Your task to perform on an android device: change keyboard looks Image 0: 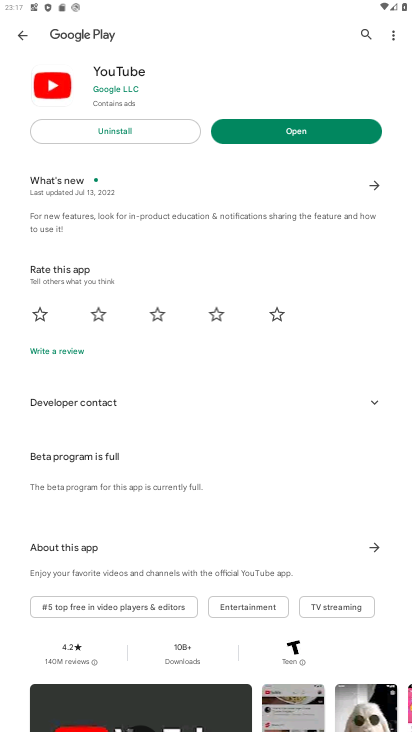
Step 0: press home button
Your task to perform on an android device: change keyboard looks Image 1: 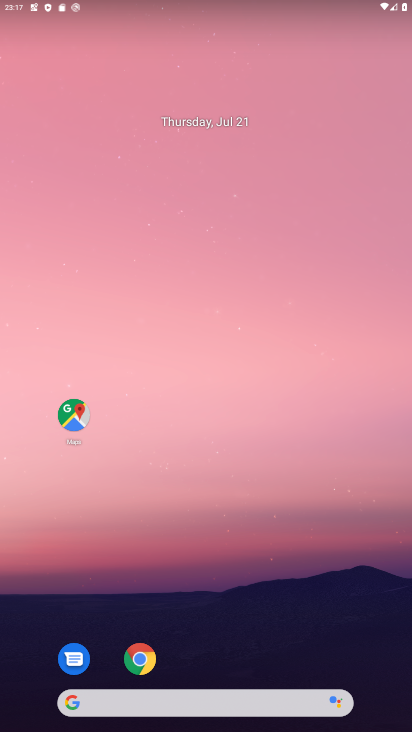
Step 1: drag from (292, 584) to (334, 21)
Your task to perform on an android device: change keyboard looks Image 2: 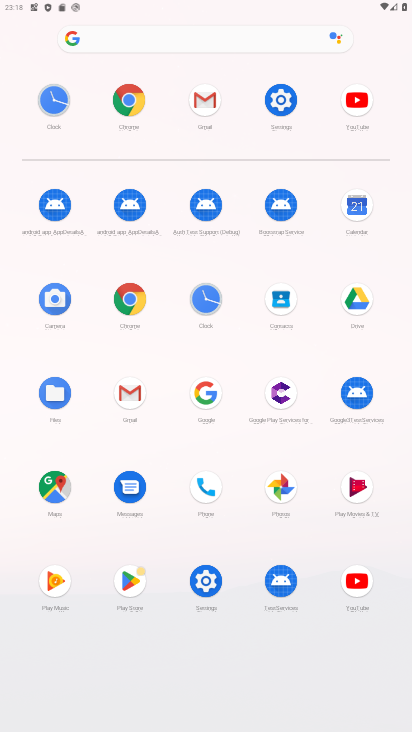
Step 2: click (281, 111)
Your task to perform on an android device: change keyboard looks Image 3: 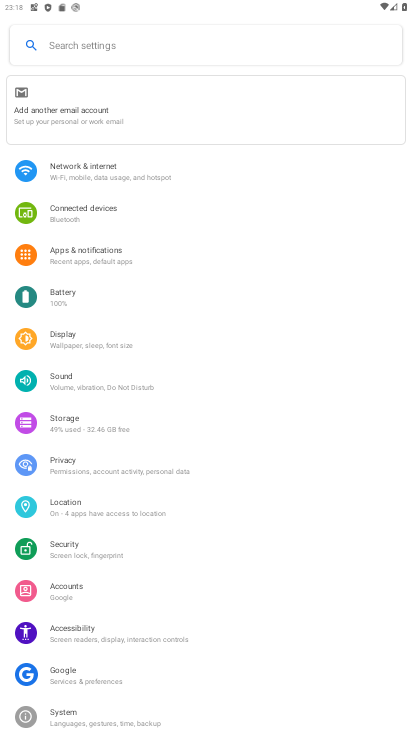
Step 3: drag from (144, 598) to (192, 215)
Your task to perform on an android device: change keyboard looks Image 4: 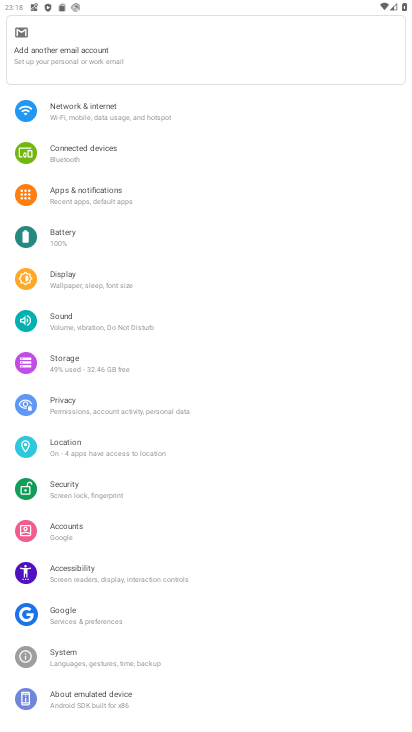
Step 4: click (106, 656)
Your task to perform on an android device: change keyboard looks Image 5: 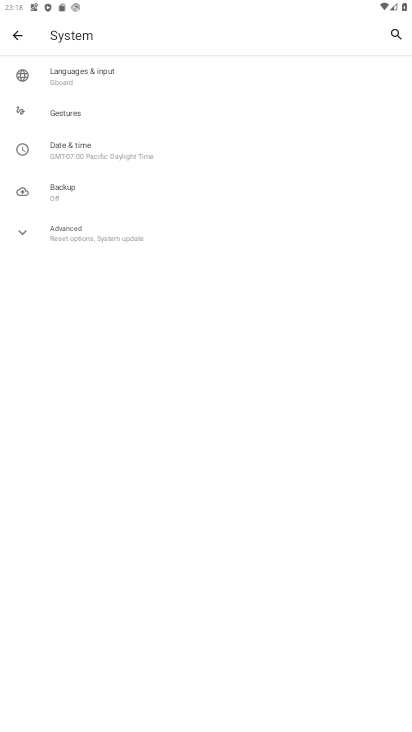
Step 5: click (88, 77)
Your task to perform on an android device: change keyboard looks Image 6: 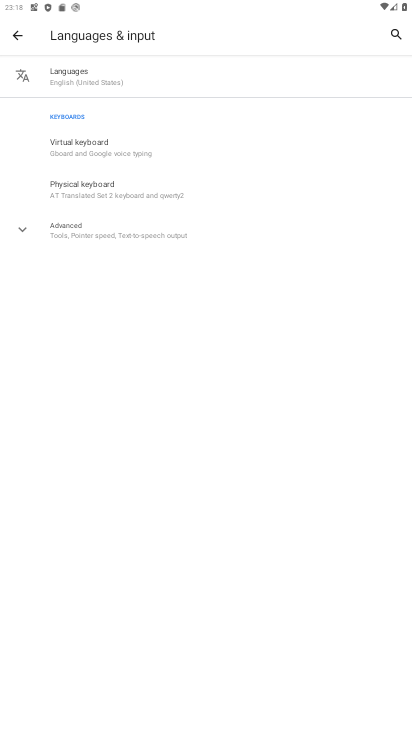
Step 6: click (117, 155)
Your task to perform on an android device: change keyboard looks Image 7: 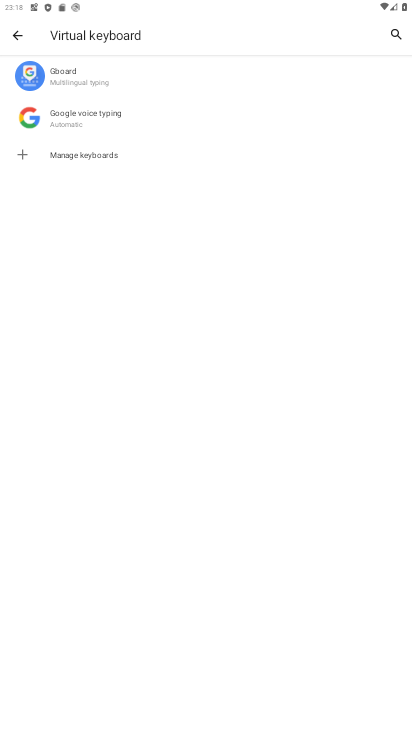
Step 7: click (91, 81)
Your task to perform on an android device: change keyboard looks Image 8: 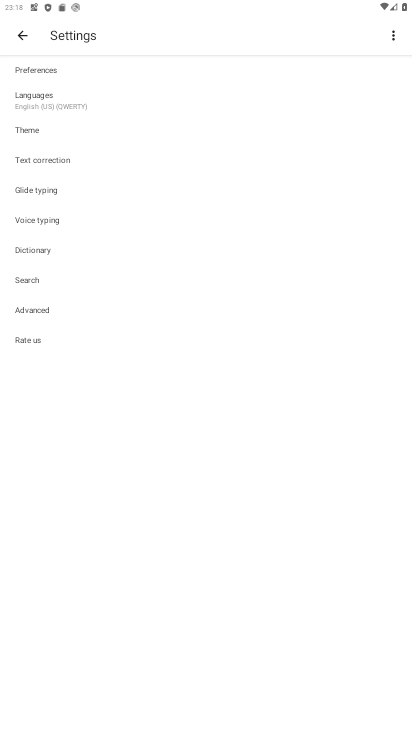
Step 8: click (63, 108)
Your task to perform on an android device: change keyboard looks Image 9: 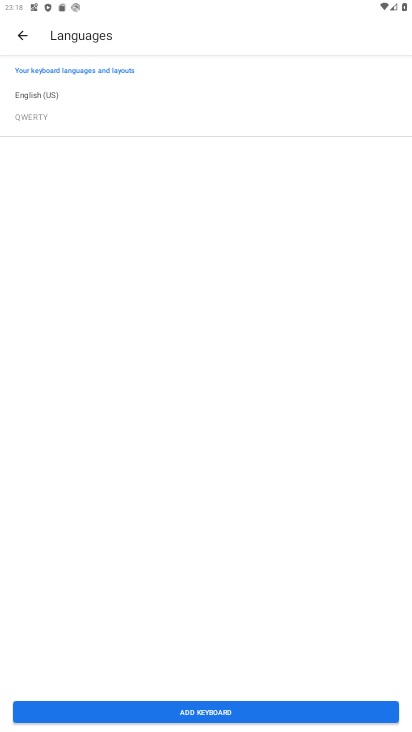
Step 9: click (24, 28)
Your task to perform on an android device: change keyboard looks Image 10: 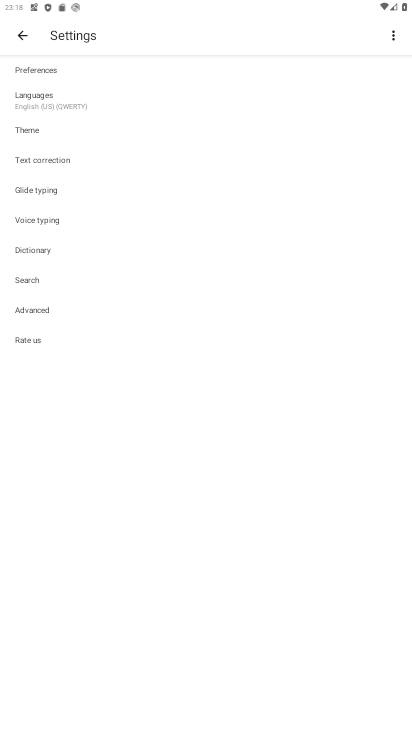
Step 10: click (43, 140)
Your task to perform on an android device: change keyboard looks Image 11: 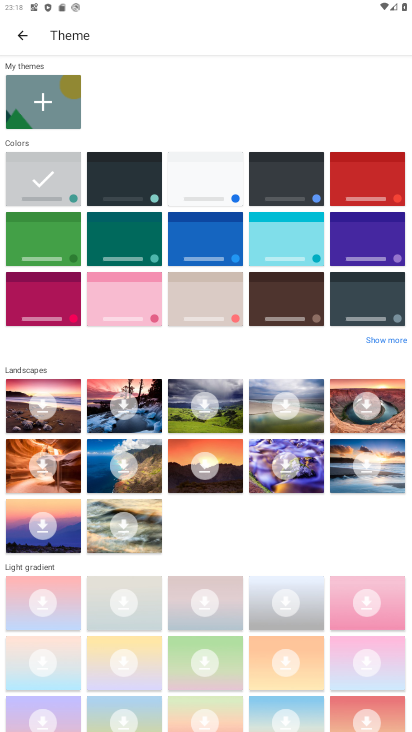
Step 11: click (192, 172)
Your task to perform on an android device: change keyboard looks Image 12: 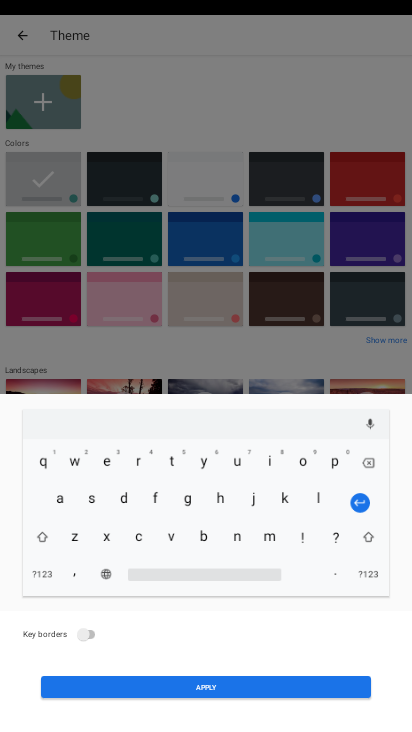
Step 12: click (163, 671)
Your task to perform on an android device: change keyboard looks Image 13: 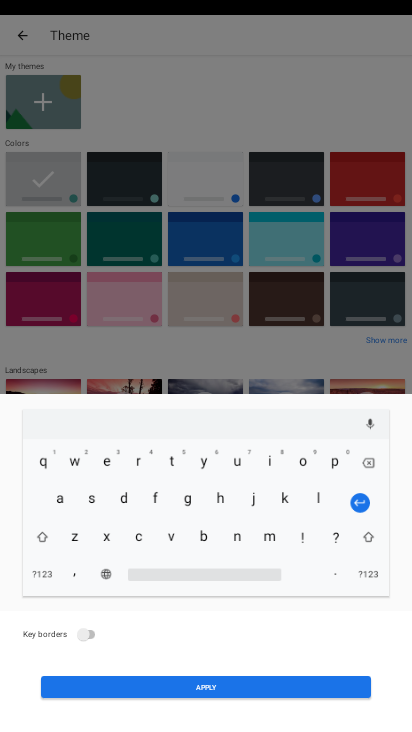
Step 13: click (170, 698)
Your task to perform on an android device: change keyboard looks Image 14: 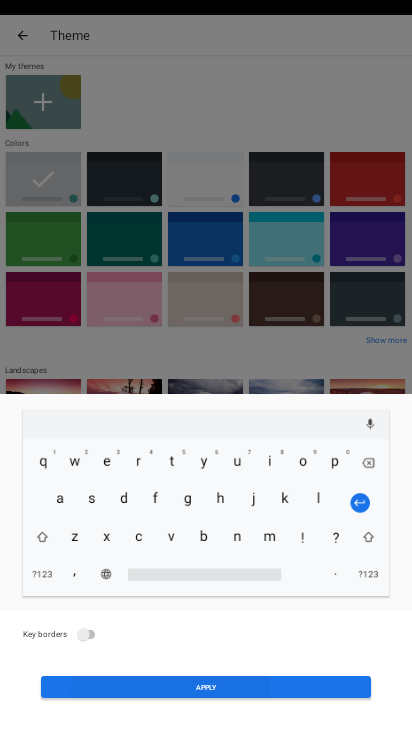
Step 14: click (173, 690)
Your task to perform on an android device: change keyboard looks Image 15: 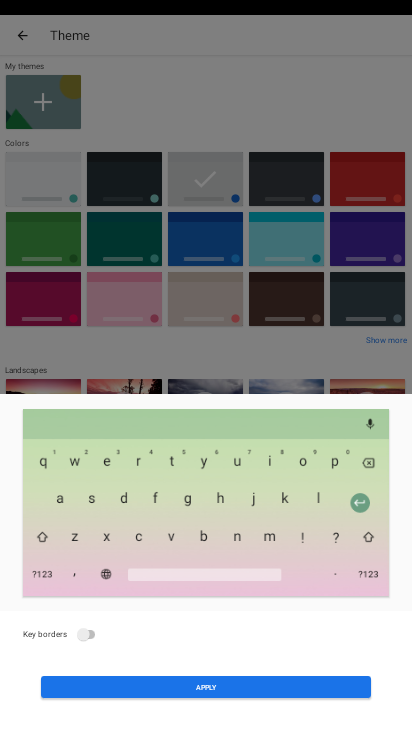
Step 15: click (246, 680)
Your task to perform on an android device: change keyboard looks Image 16: 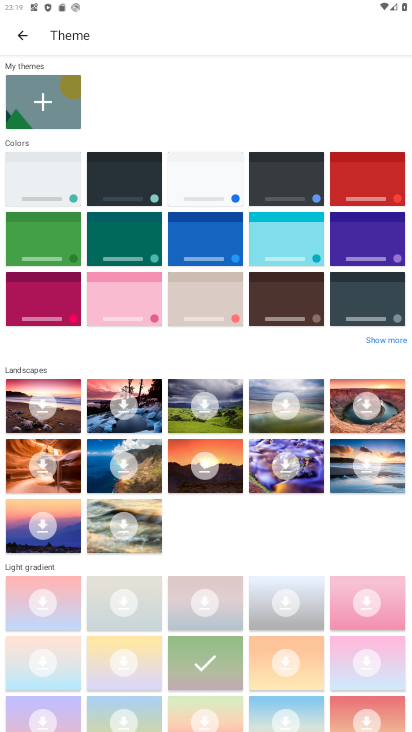
Step 16: click (206, 188)
Your task to perform on an android device: change keyboard looks Image 17: 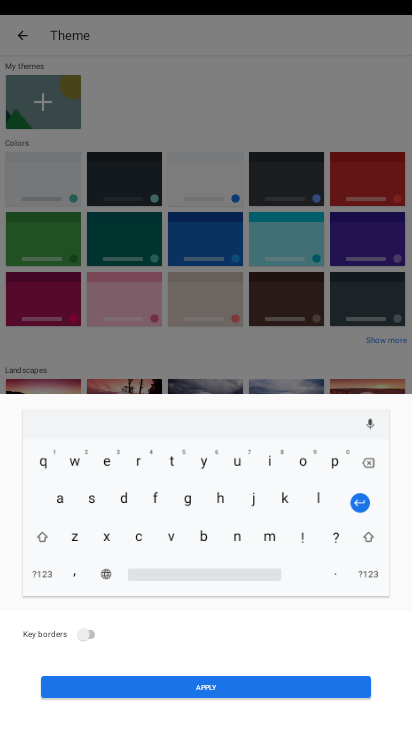
Step 17: click (254, 689)
Your task to perform on an android device: change keyboard looks Image 18: 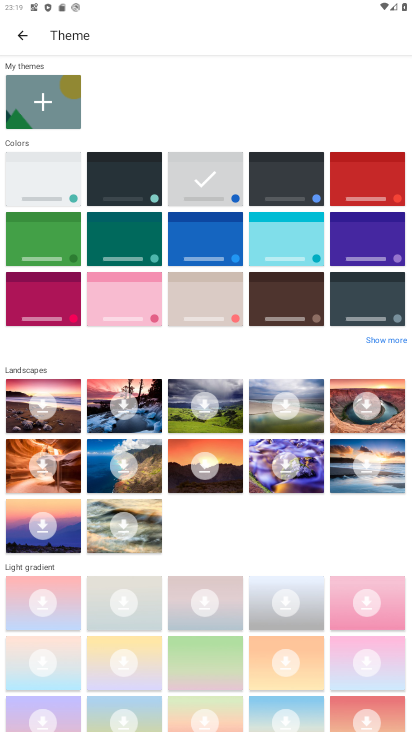
Step 18: task complete